Your task to perform on an android device: Open Reddit.com Image 0: 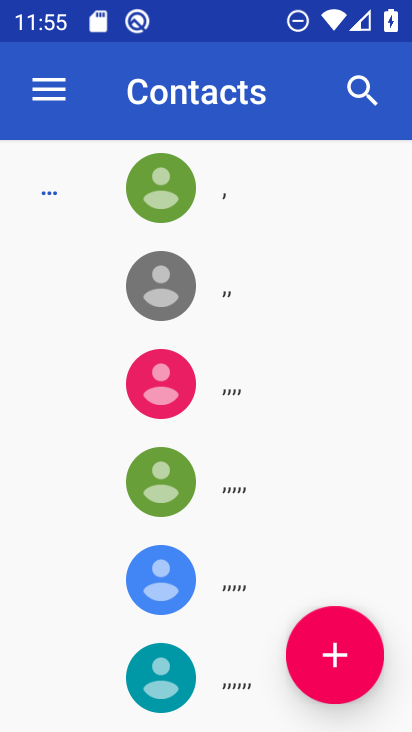
Step 0: press home button
Your task to perform on an android device: Open Reddit.com Image 1: 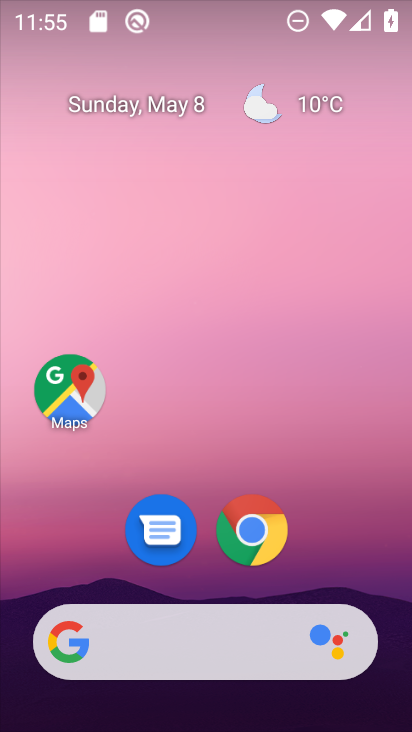
Step 1: click (169, 650)
Your task to perform on an android device: Open Reddit.com Image 2: 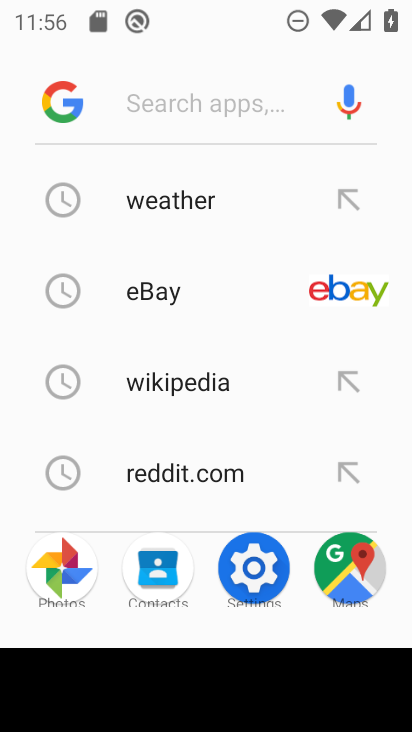
Step 2: click (158, 475)
Your task to perform on an android device: Open Reddit.com Image 3: 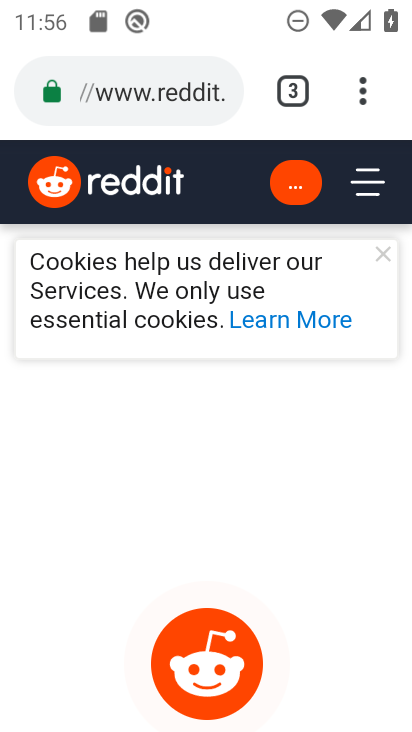
Step 3: task complete